Your task to perform on an android device: open chrome and create a bookmark for the current page Image 0: 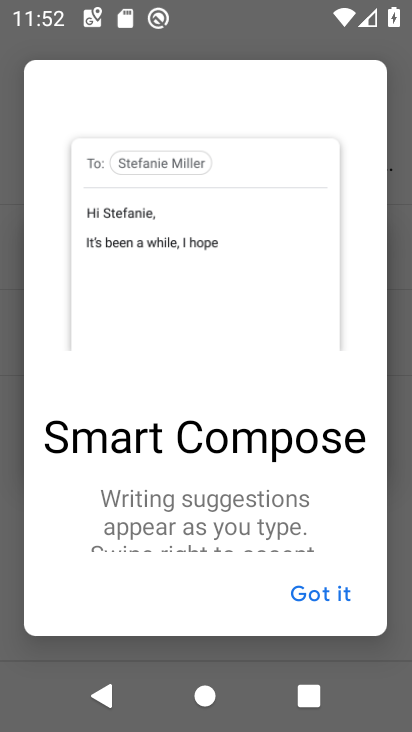
Step 0: press home button
Your task to perform on an android device: open chrome and create a bookmark for the current page Image 1: 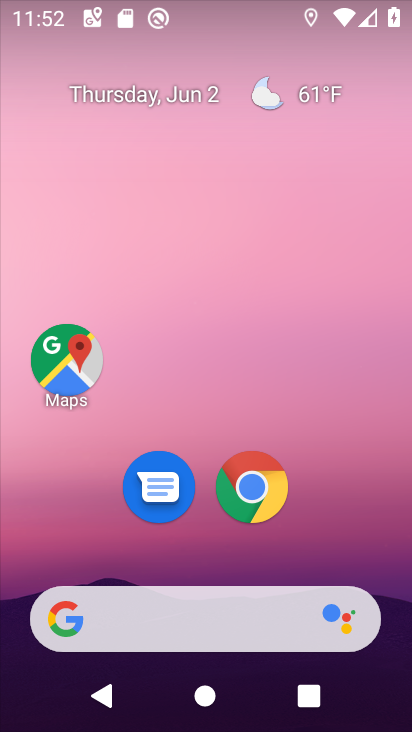
Step 1: click (251, 486)
Your task to perform on an android device: open chrome and create a bookmark for the current page Image 2: 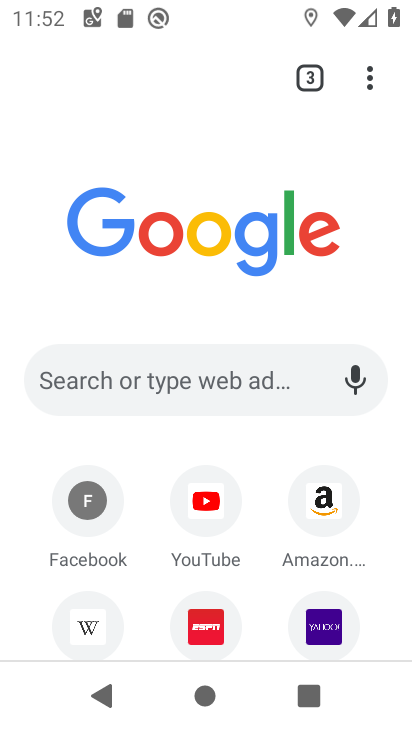
Step 2: click (370, 78)
Your task to perform on an android device: open chrome and create a bookmark for the current page Image 3: 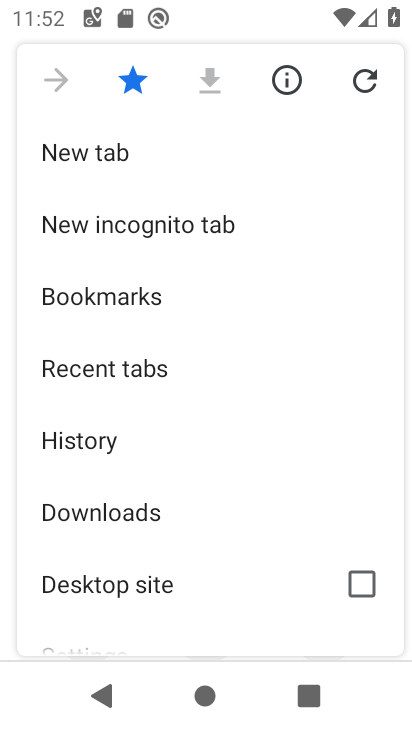
Step 3: task complete